Your task to perform on an android device: Find coffee shops on Maps Image 0: 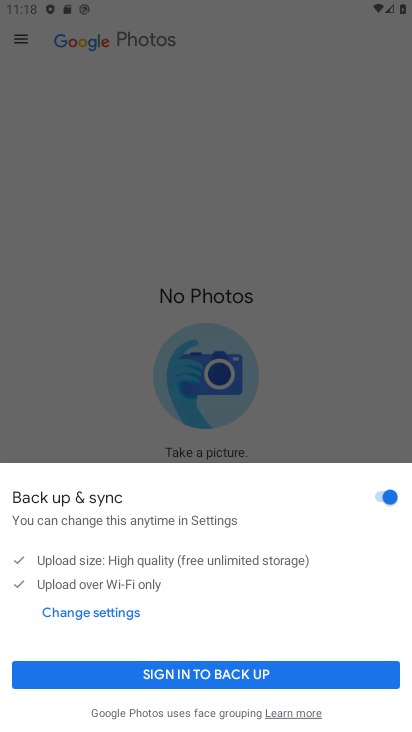
Step 0: press home button
Your task to perform on an android device: Find coffee shops on Maps Image 1: 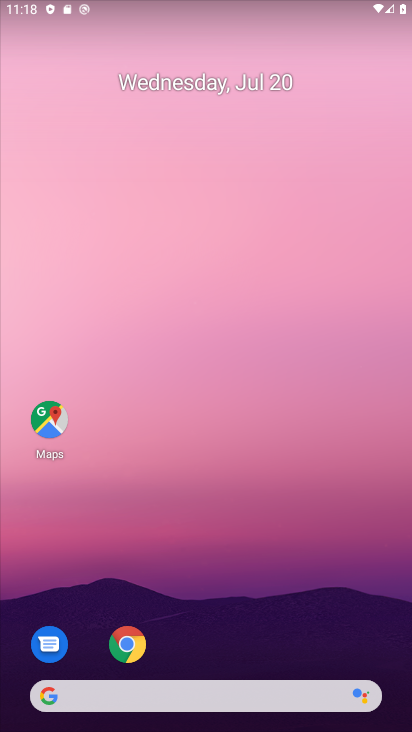
Step 1: click (44, 416)
Your task to perform on an android device: Find coffee shops on Maps Image 2: 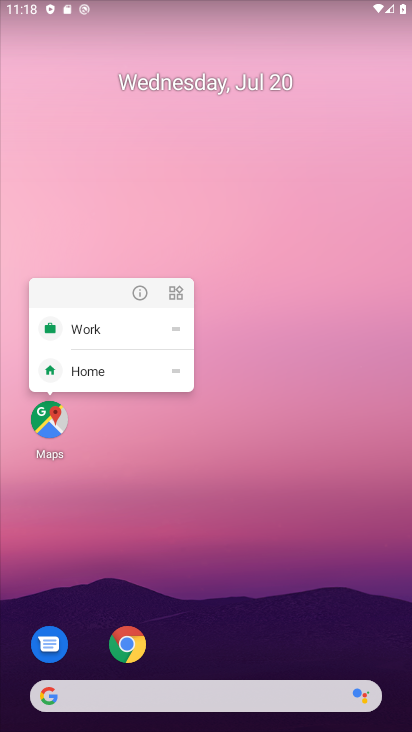
Step 2: click (40, 428)
Your task to perform on an android device: Find coffee shops on Maps Image 3: 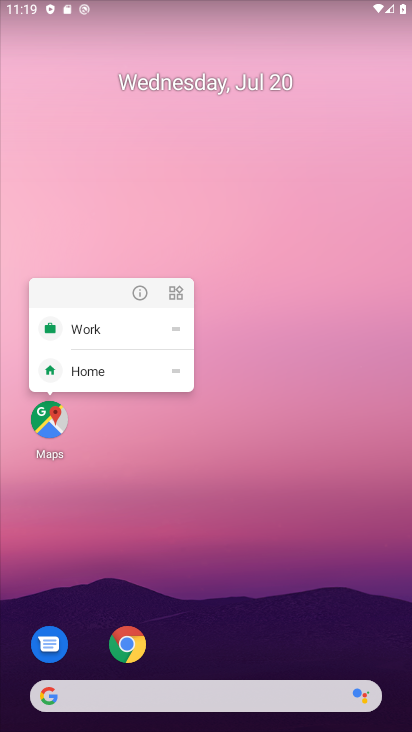
Step 3: click (56, 426)
Your task to perform on an android device: Find coffee shops on Maps Image 4: 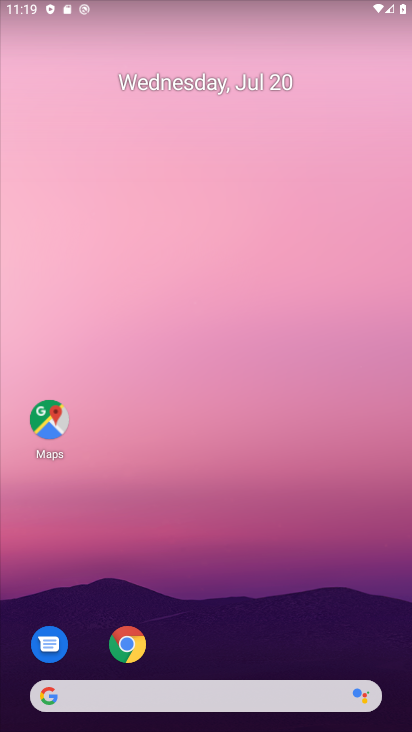
Step 4: click (56, 426)
Your task to perform on an android device: Find coffee shops on Maps Image 5: 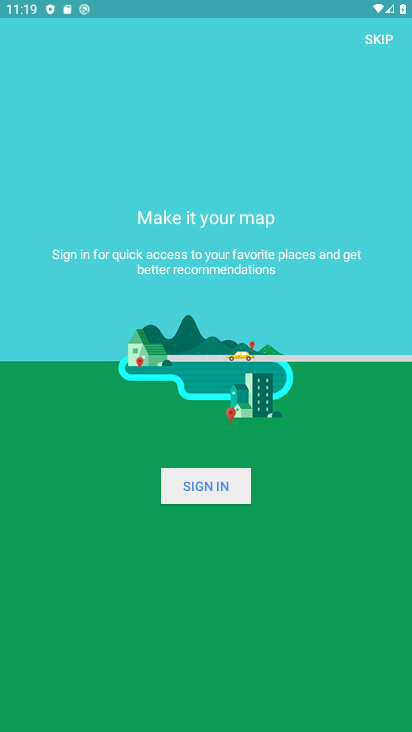
Step 5: click (386, 35)
Your task to perform on an android device: Find coffee shops on Maps Image 6: 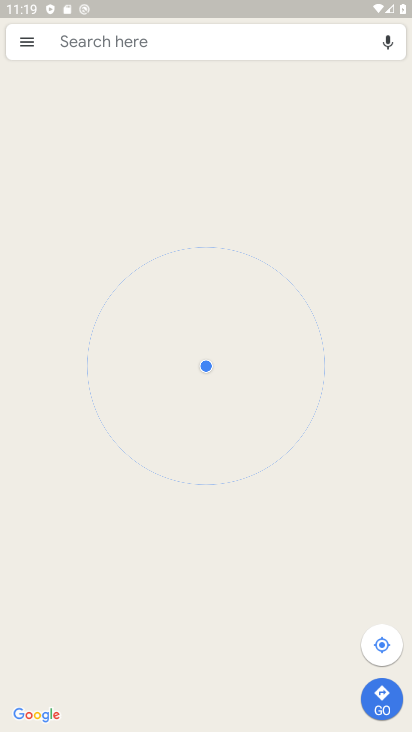
Step 6: task complete